Your task to perform on an android device: Open battery settings Image 0: 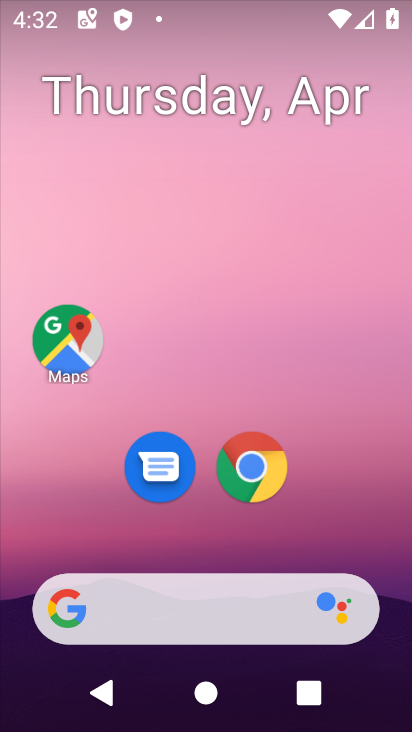
Step 0: drag from (201, 500) to (320, 3)
Your task to perform on an android device: Open battery settings Image 1: 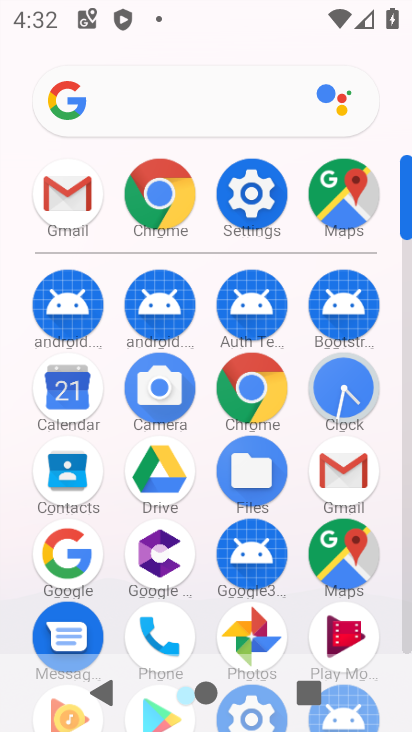
Step 1: click (254, 218)
Your task to perform on an android device: Open battery settings Image 2: 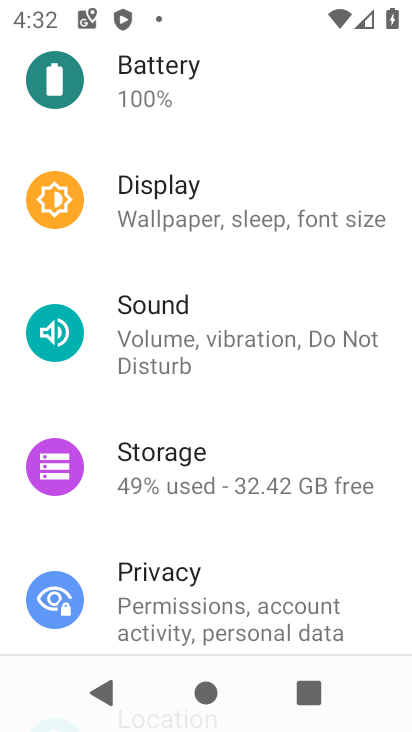
Step 2: drag from (206, 228) to (195, 559)
Your task to perform on an android device: Open battery settings Image 3: 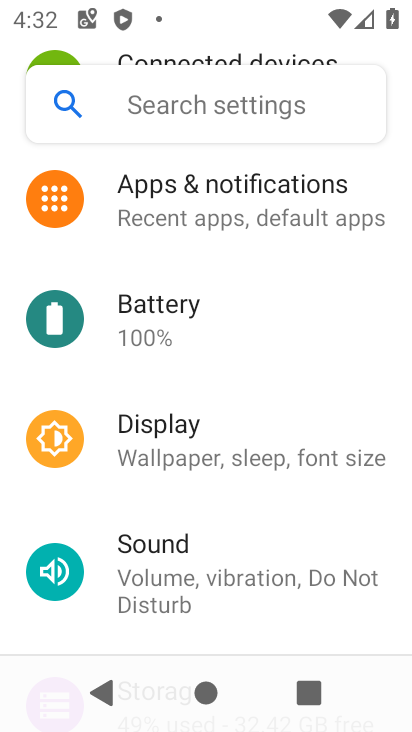
Step 3: click (156, 334)
Your task to perform on an android device: Open battery settings Image 4: 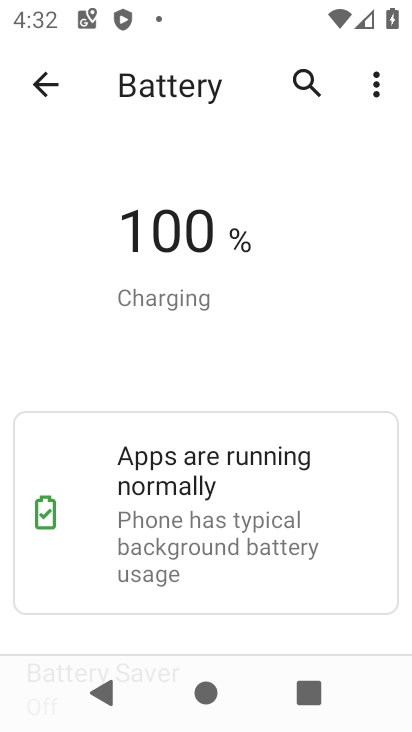
Step 4: task complete